Your task to perform on an android device: Open CNN.com Image 0: 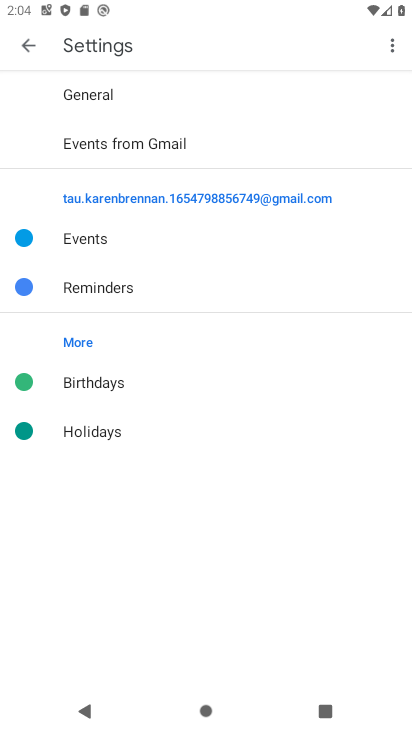
Step 0: press home button
Your task to perform on an android device: Open CNN.com Image 1: 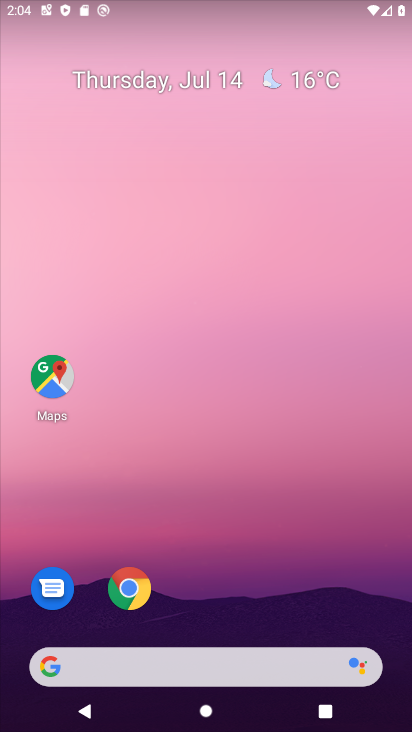
Step 1: click (130, 588)
Your task to perform on an android device: Open CNN.com Image 2: 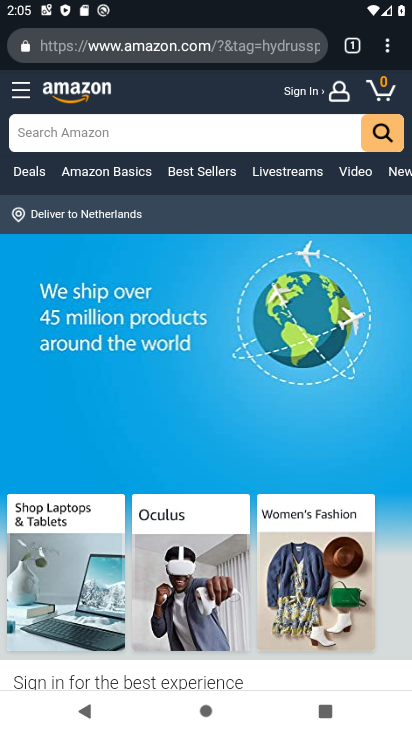
Step 2: click (195, 49)
Your task to perform on an android device: Open CNN.com Image 3: 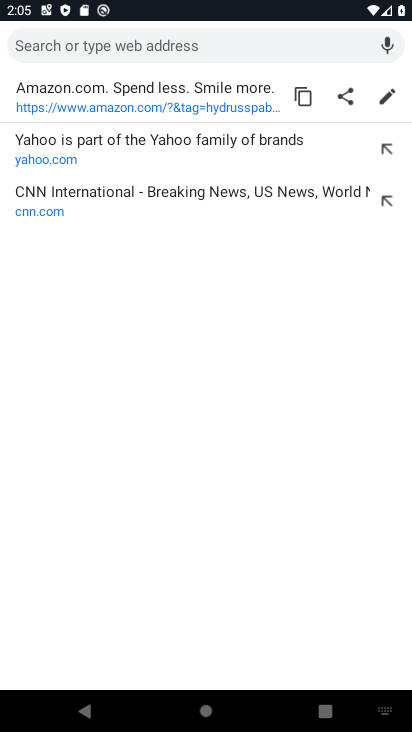
Step 3: type "CNN.com"
Your task to perform on an android device: Open CNN.com Image 4: 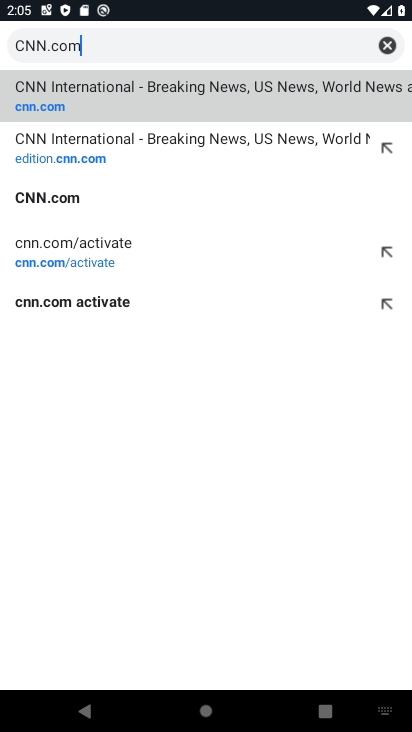
Step 4: click (194, 85)
Your task to perform on an android device: Open CNN.com Image 5: 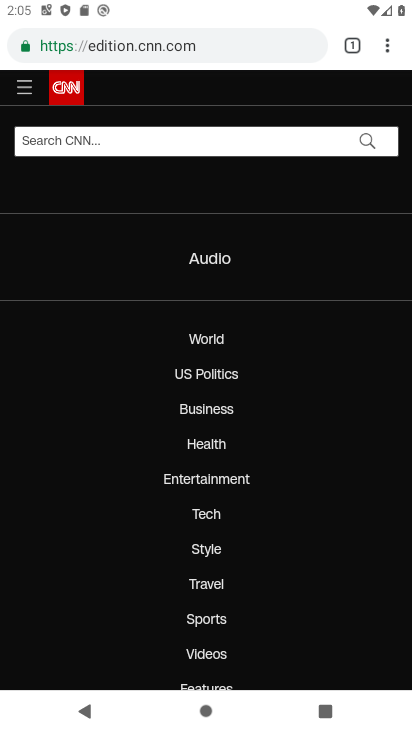
Step 5: task complete